Your task to perform on an android device: Show the shopping cart on ebay.com. Search for "usb-c" on ebay.com, select the first entry, and add it to the cart. Image 0: 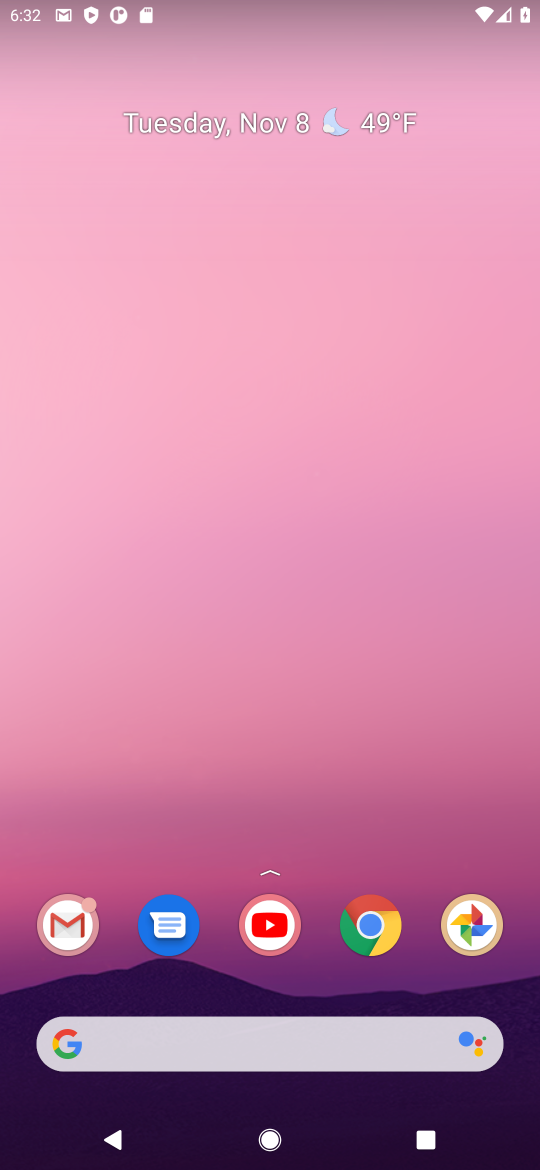
Step 0: click (371, 925)
Your task to perform on an android device: Show the shopping cart on ebay.com. Search for "usb-c" on ebay.com, select the first entry, and add it to the cart. Image 1: 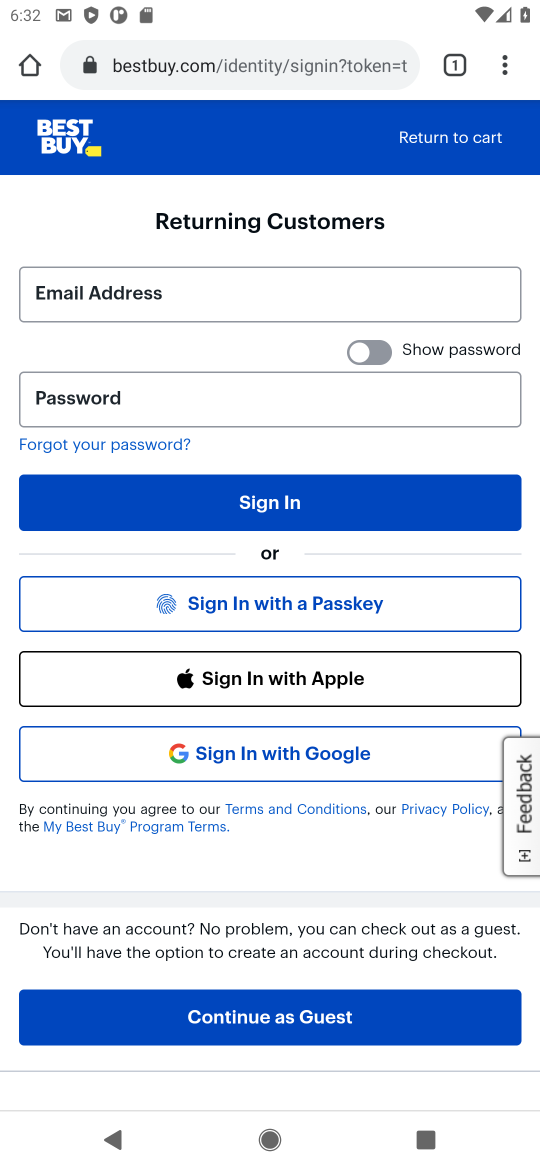
Step 1: click (216, 64)
Your task to perform on an android device: Show the shopping cart on ebay.com. Search for "usb-c" on ebay.com, select the first entry, and add it to the cart. Image 2: 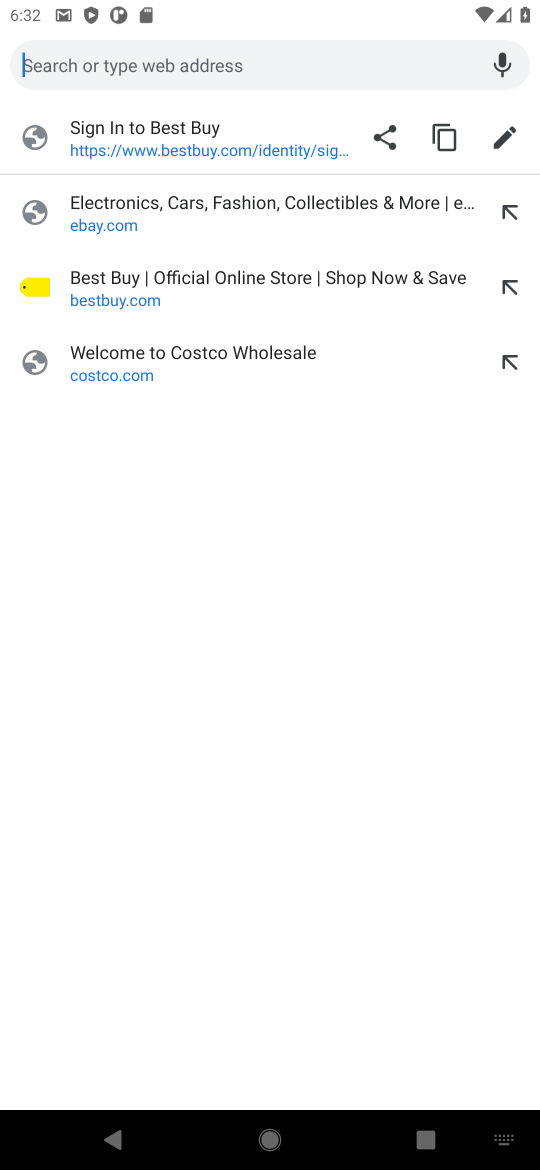
Step 2: type "ebay"
Your task to perform on an android device: Show the shopping cart on ebay.com. Search for "usb-c" on ebay.com, select the first entry, and add it to the cart. Image 3: 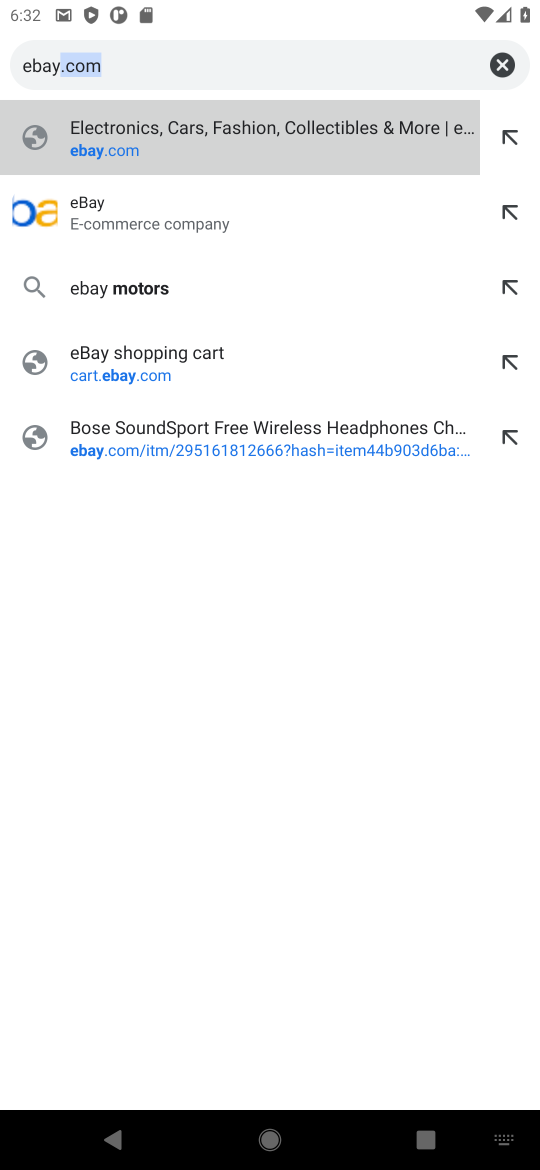
Step 3: press enter
Your task to perform on an android device: Show the shopping cart on ebay.com. Search for "usb-c" on ebay.com, select the first entry, and add it to the cart. Image 4: 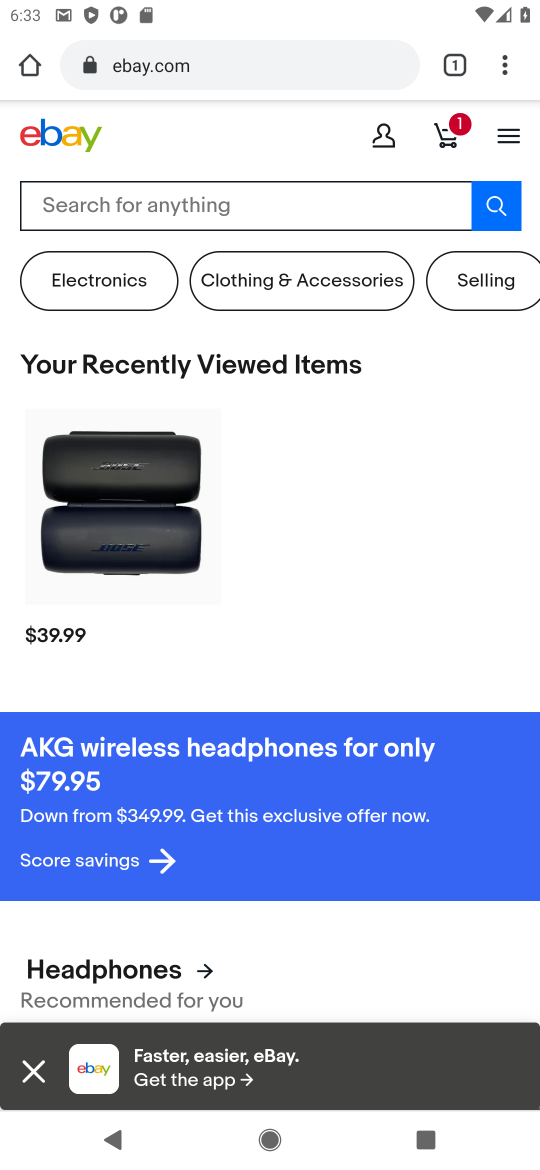
Step 4: click (271, 205)
Your task to perform on an android device: Show the shopping cart on ebay.com. Search for "usb-c" on ebay.com, select the first entry, and add it to the cart. Image 5: 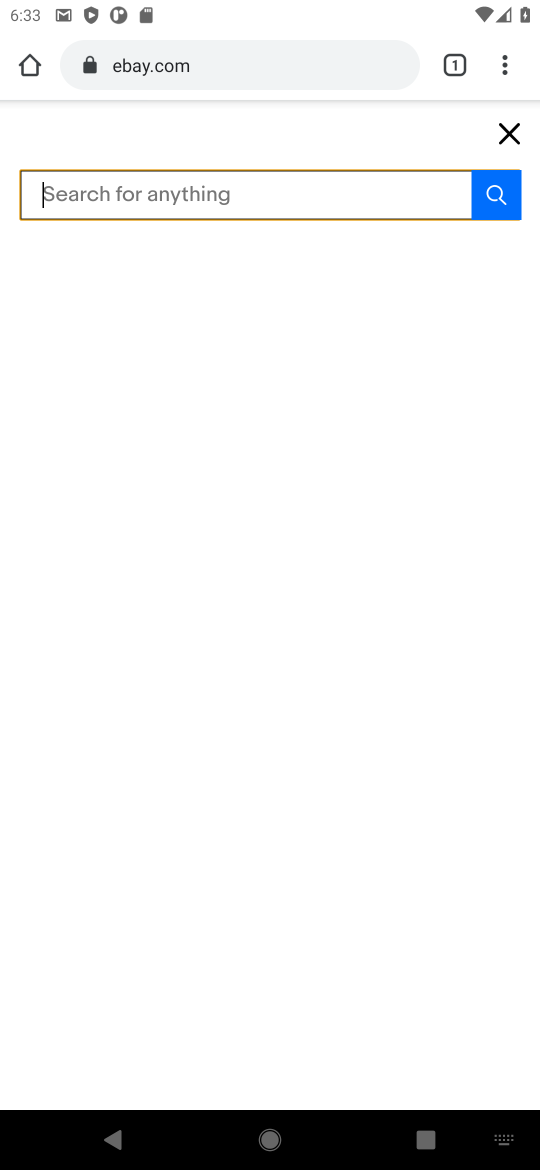
Step 5: type "usb-c"
Your task to perform on an android device: Show the shopping cart on ebay.com. Search for "usb-c" on ebay.com, select the first entry, and add it to the cart. Image 6: 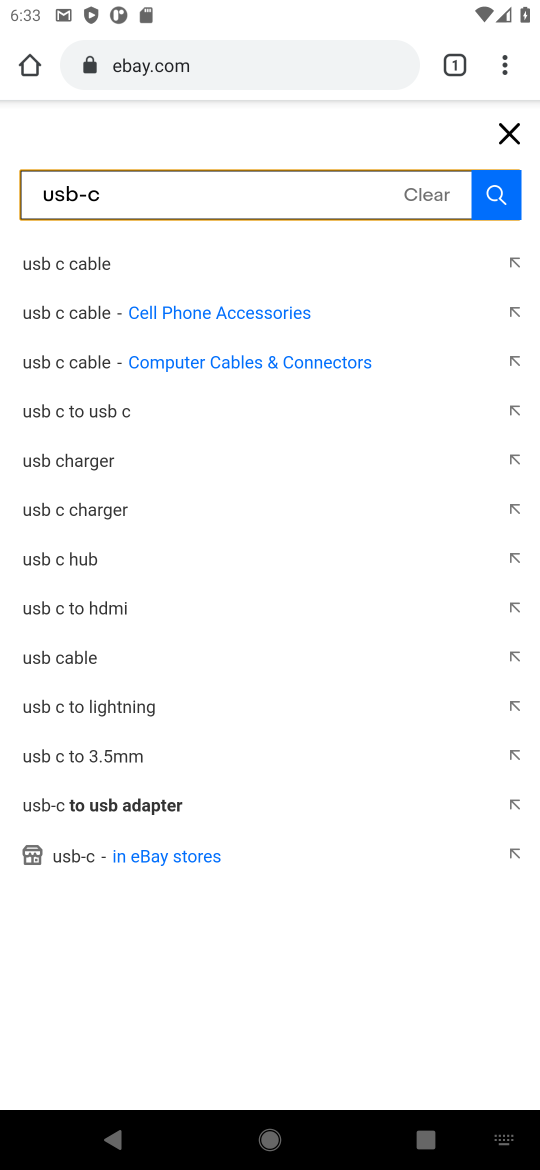
Step 6: click (507, 133)
Your task to perform on an android device: Show the shopping cart on ebay.com. Search for "usb-c" on ebay.com, select the first entry, and add it to the cart. Image 7: 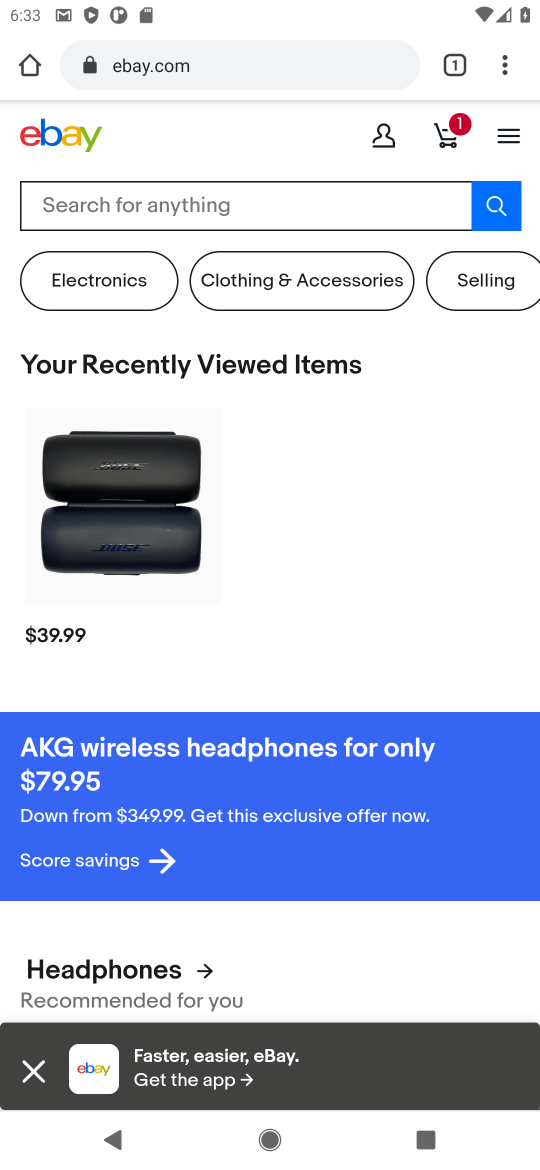
Step 7: click (453, 124)
Your task to perform on an android device: Show the shopping cart on ebay.com. Search for "usb-c" on ebay.com, select the first entry, and add it to the cart. Image 8: 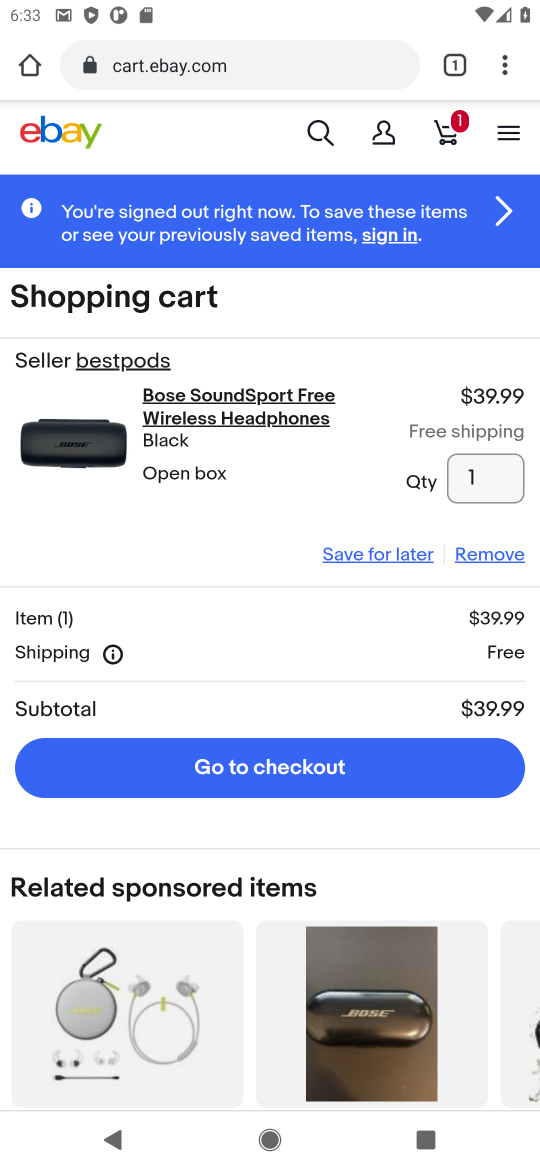
Step 8: click (321, 132)
Your task to perform on an android device: Show the shopping cart on ebay.com. Search for "usb-c" on ebay.com, select the first entry, and add it to the cart. Image 9: 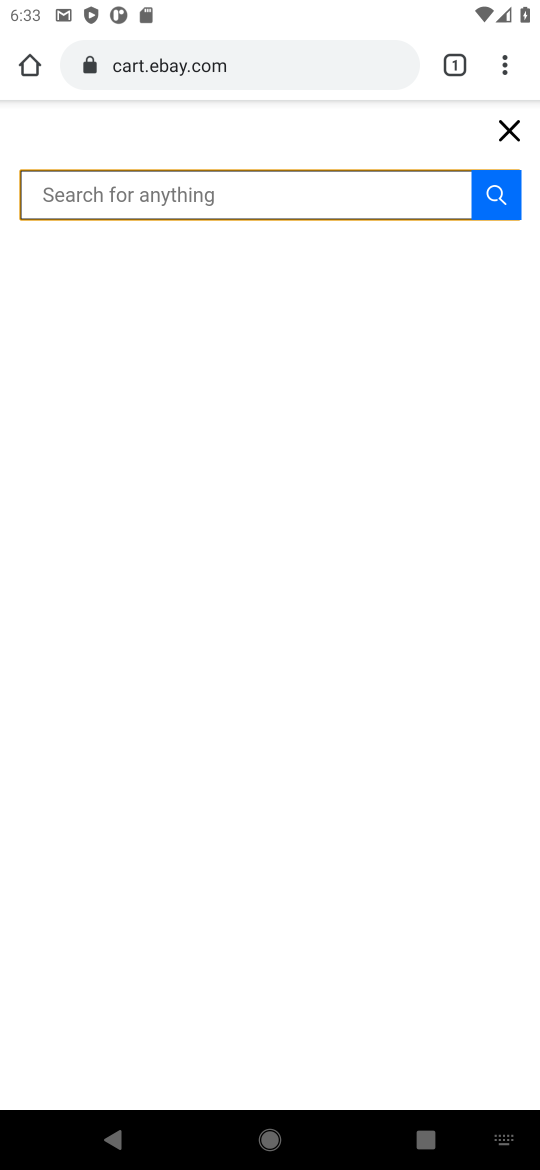
Step 9: click (263, 194)
Your task to perform on an android device: Show the shopping cart on ebay.com. Search for "usb-c" on ebay.com, select the first entry, and add it to the cart. Image 10: 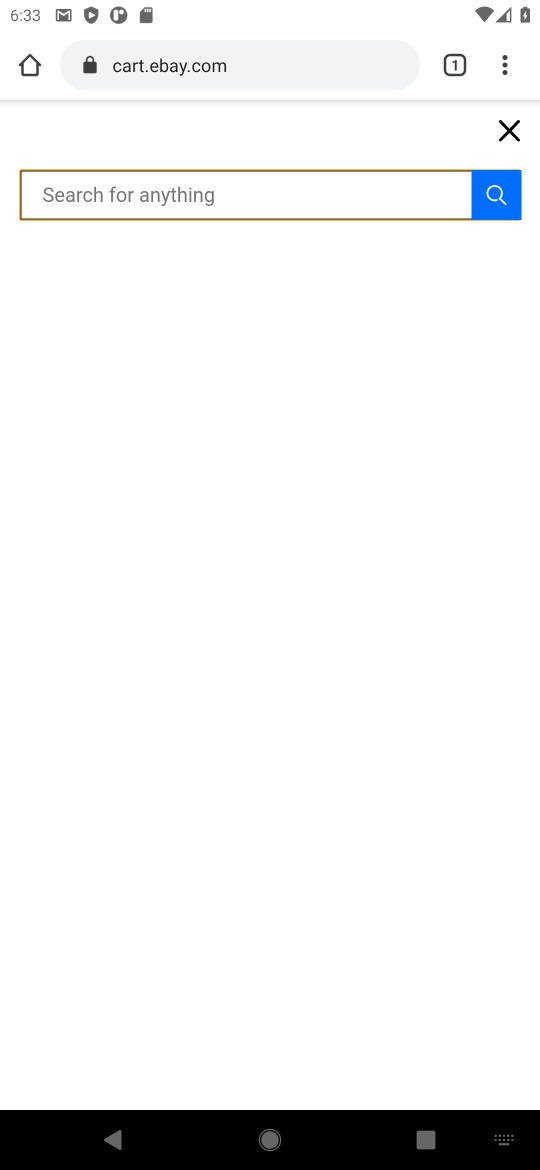
Step 10: type "usb-c"
Your task to perform on an android device: Show the shopping cart on ebay.com. Search for "usb-c" on ebay.com, select the first entry, and add it to the cart. Image 11: 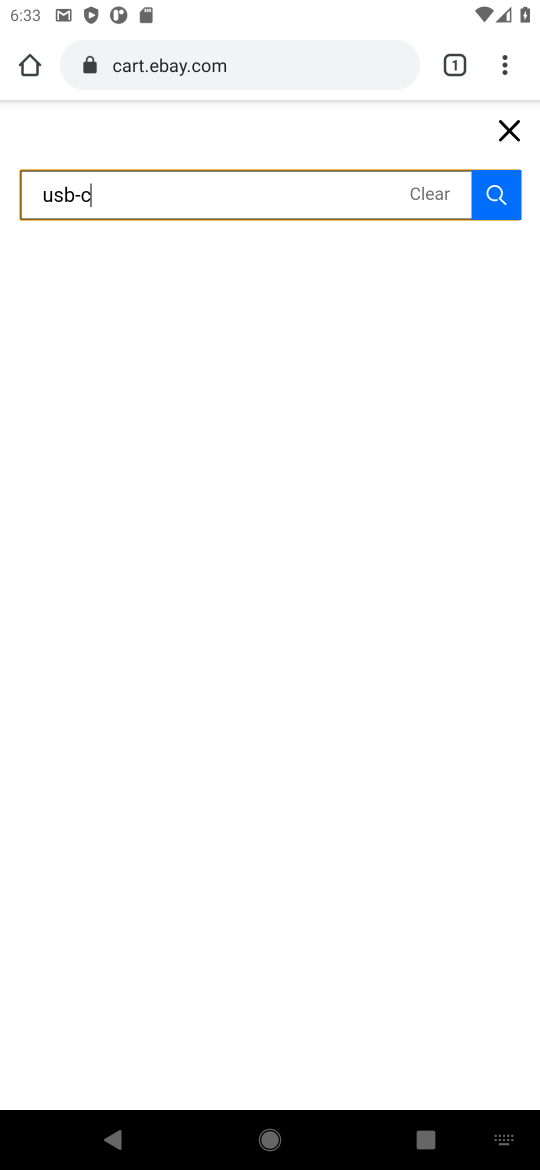
Step 11: click (495, 190)
Your task to perform on an android device: Show the shopping cart on ebay.com. Search for "usb-c" on ebay.com, select the first entry, and add it to the cart. Image 12: 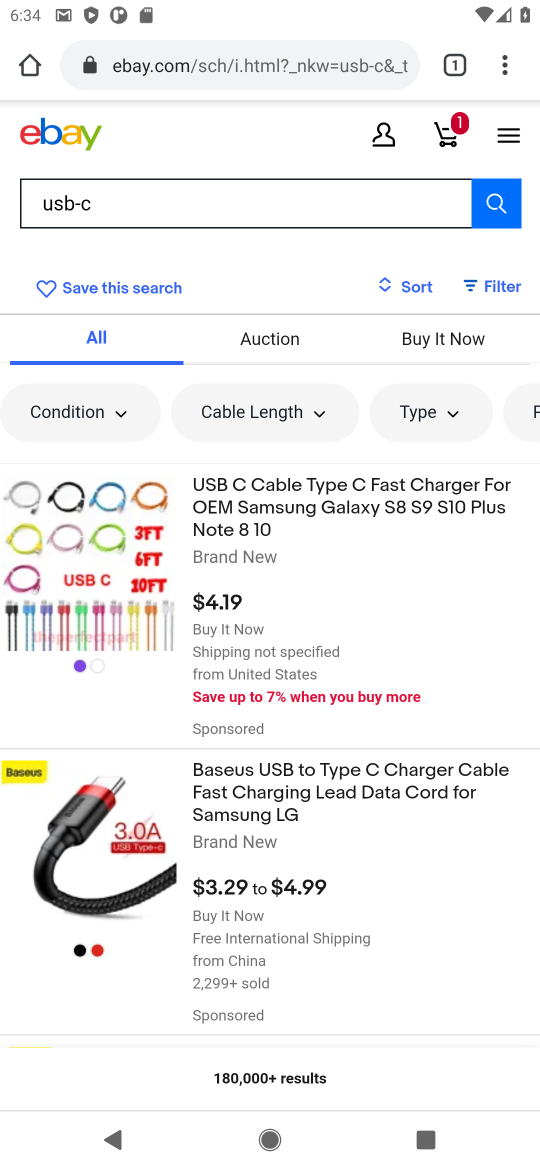
Step 12: click (327, 519)
Your task to perform on an android device: Show the shopping cart on ebay.com. Search for "usb-c" on ebay.com, select the first entry, and add it to the cart. Image 13: 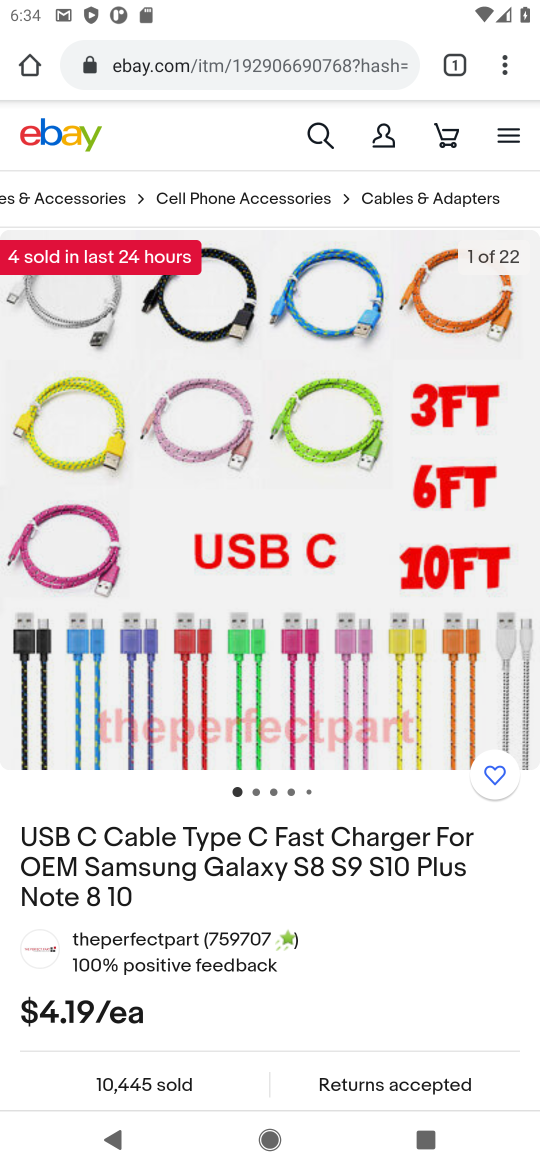
Step 13: drag from (408, 978) to (358, 242)
Your task to perform on an android device: Show the shopping cart on ebay.com. Search for "usb-c" on ebay.com, select the first entry, and add it to the cart. Image 14: 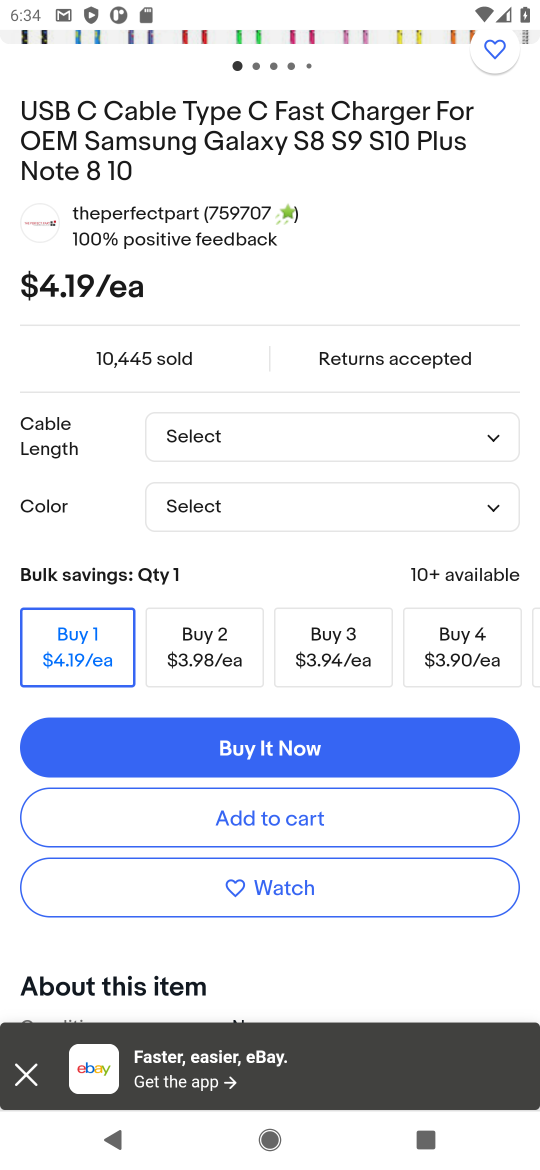
Step 14: click (178, 809)
Your task to perform on an android device: Show the shopping cart on ebay.com. Search for "usb-c" on ebay.com, select the first entry, and add it to the cart. Image 15: 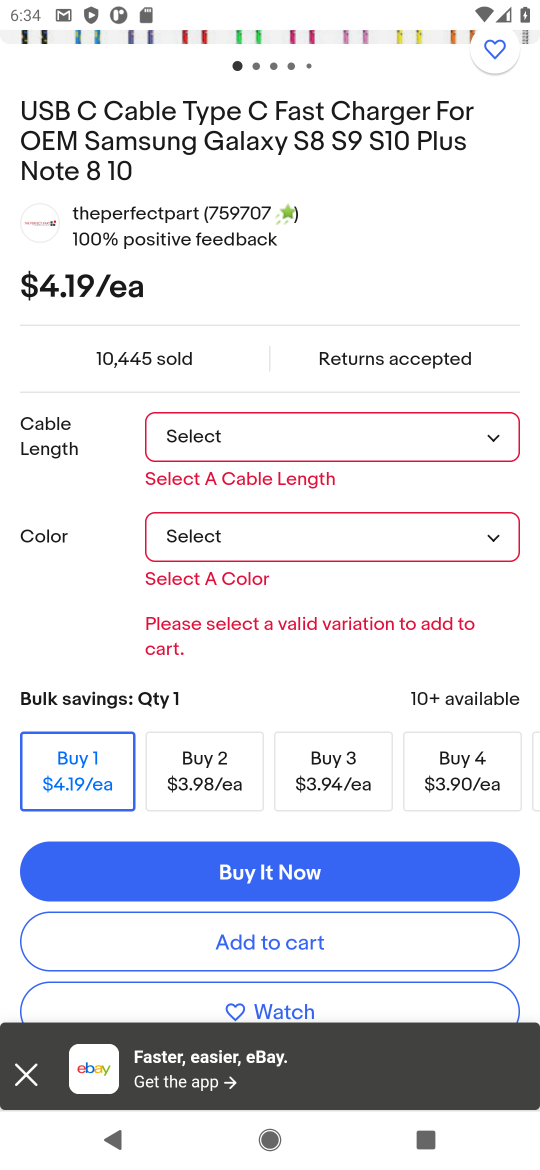
Step 15: click (492, 435)
Your task to perform on an android device: Show the shopping cart on ebay.com. Search for "usb-c" on ebay.com, select the first entry, and add it to the cart. Image 16: 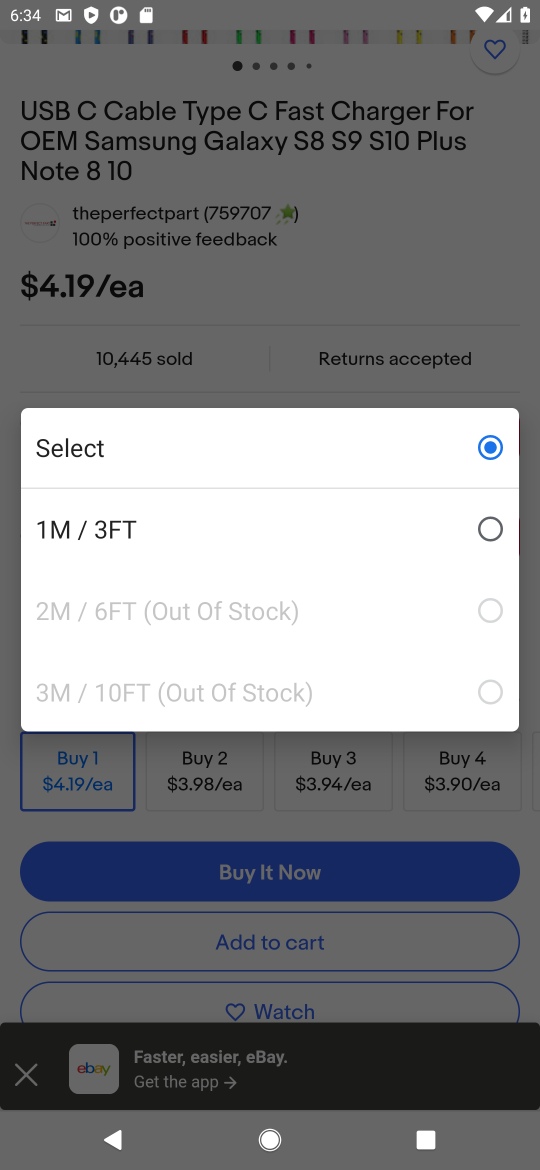
Step 16: click (279, 528)
Your task to perform on an android device: Show the shopping cart on ebay.com. Search for "usb-c" on ebay.com, select the first entry, and add it to the cart. Image 17: 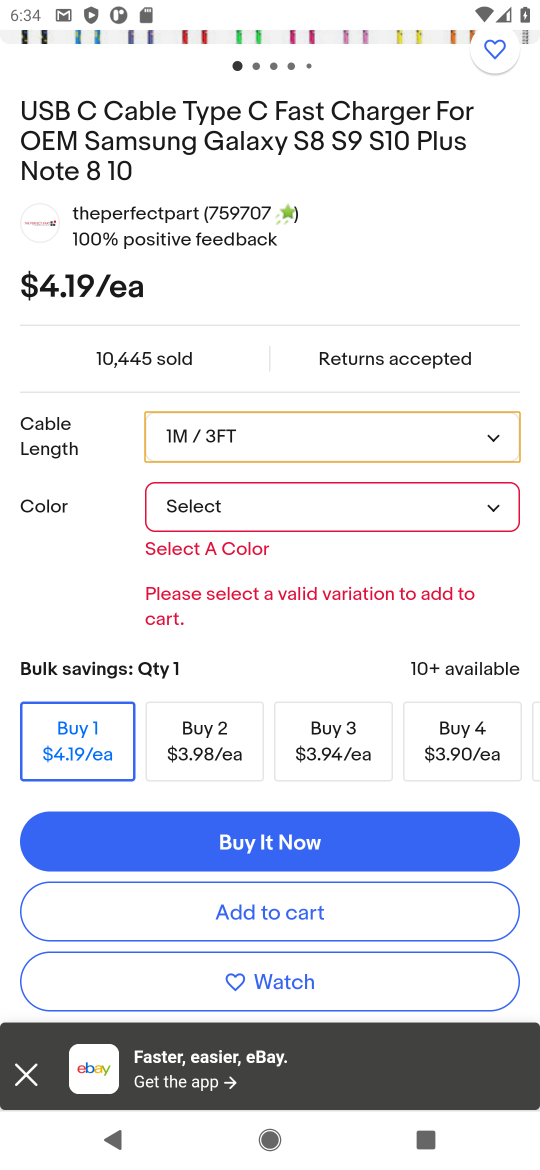
Step 17: click (334, 506)
Your task to perform on an android device: Show the shopping cart on ebay.com. Search for "usb-c" on ebay.com, select the first entry, and add it to the cart. Image 18: 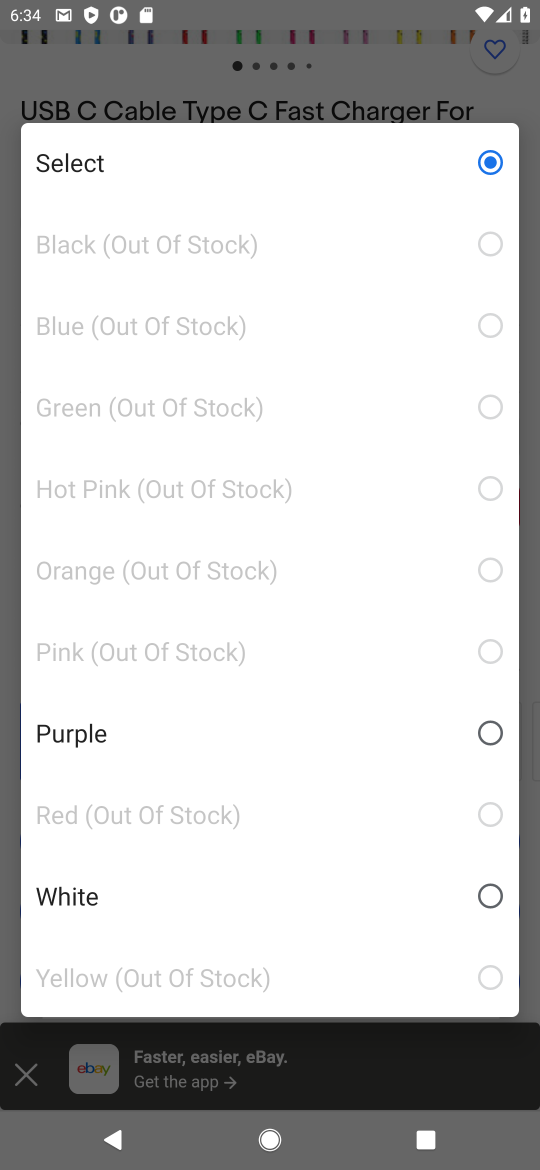
Step 18: click (292, 908)
Your task to perform on an android device: Show the shopping cart on ebay.com. Search for "usb-c" on ebay.com, select the first entry, and add it to the cart. Image 19: 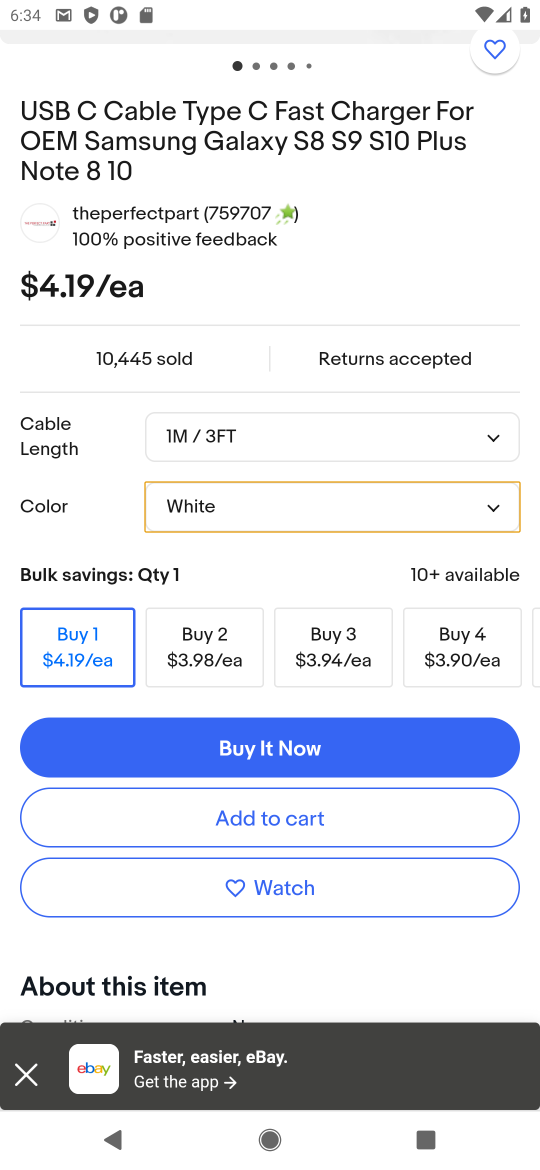
Step 19: click (278, 821)
Your task to perform on an android device: Show the shopping cart on ebay.com. Search for "usb-c" on ebay.com, select the first entry, and add it to the cart. Image 20: 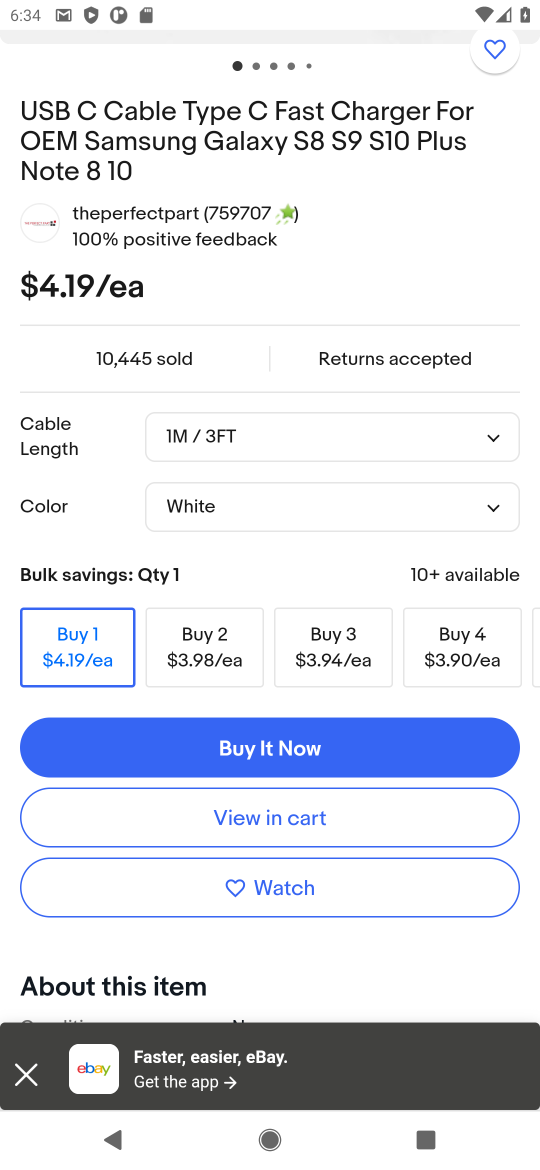
Step 20: click (278, 821)
Your task to perform on an android device: Show the shopping cart on ebay.com. Search for "usb-c" on ebay.com, select the first entry, and add it to the cart. Image 21: 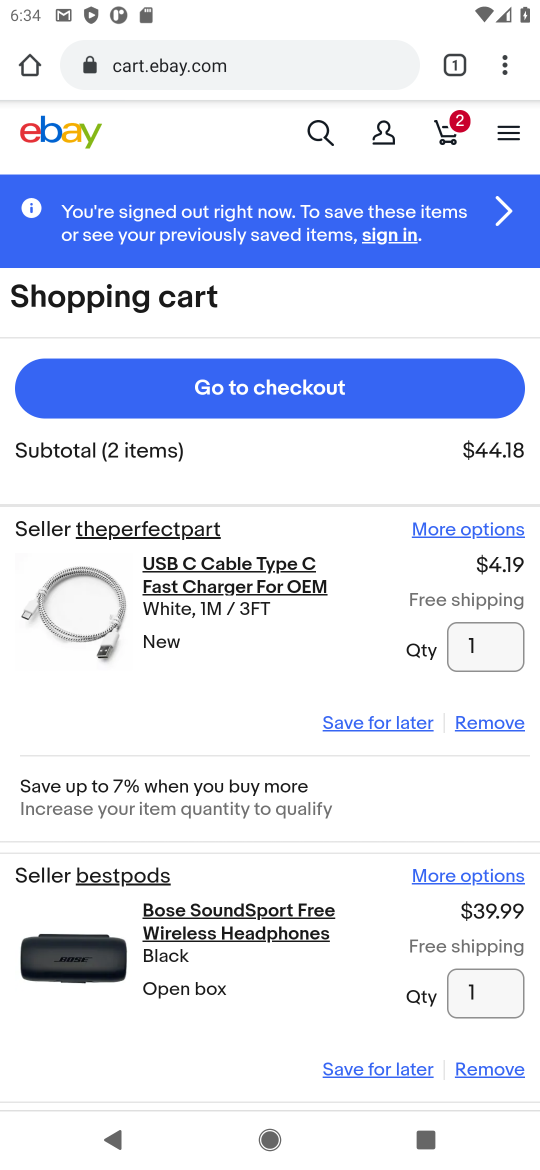
Step 21: click (251, 391)
Your task to perform on an android device: Show the shopping cart on ebay.com. Search for "usb-c" on ebay.com, select the first entry, and add it to the cart. Image 22: 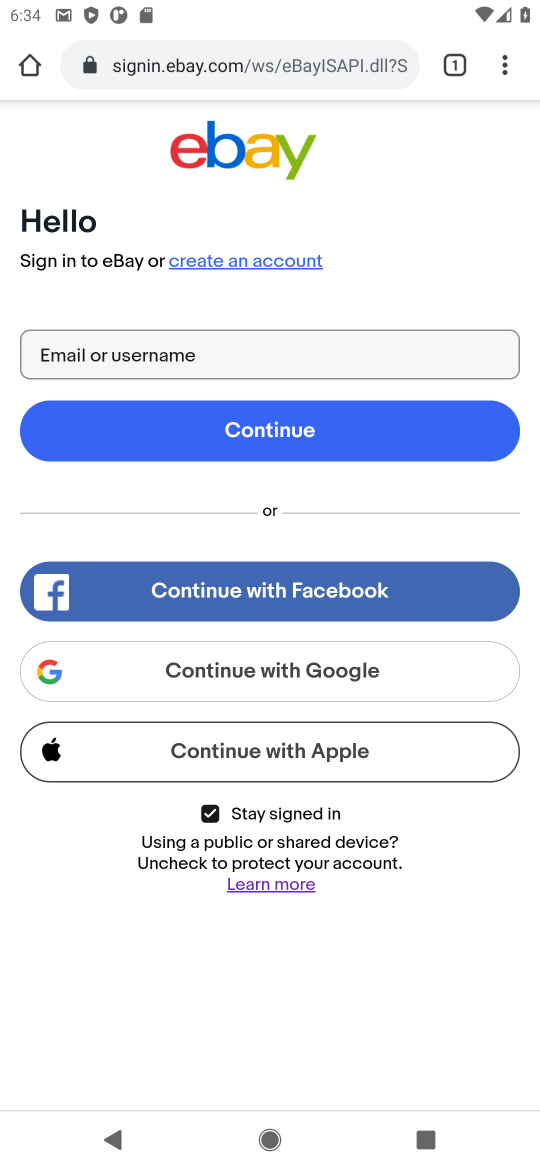
Step 22: task complete